Your task to perform on an android device: Empty the shopping cart on bestbuy. Image 0: 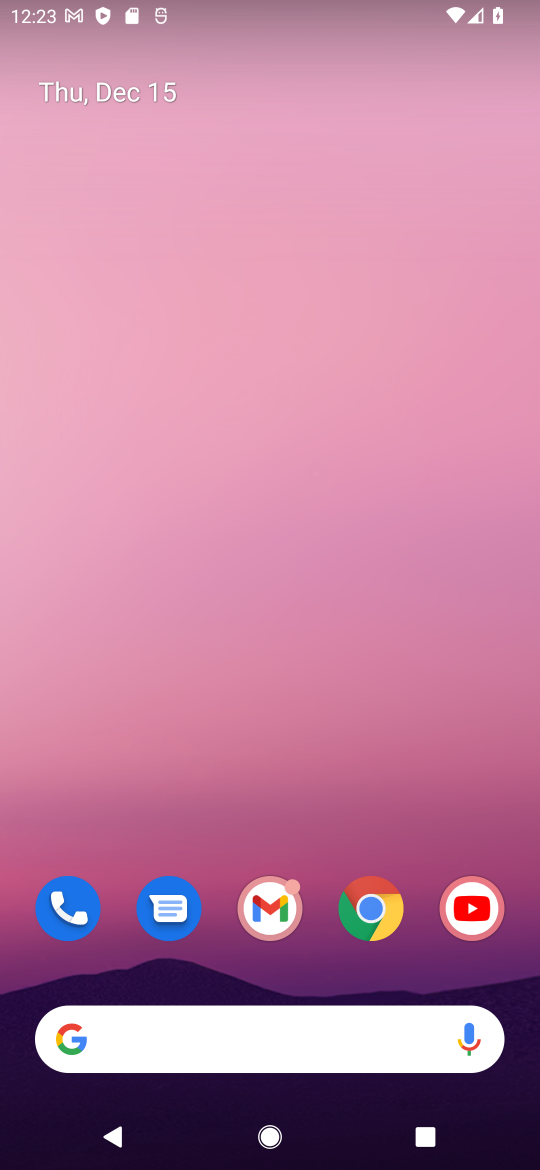
Step 0: click (364, 911)
Your task to perform on an android device: Empty the shopping cart on bestbuy. Image 1: 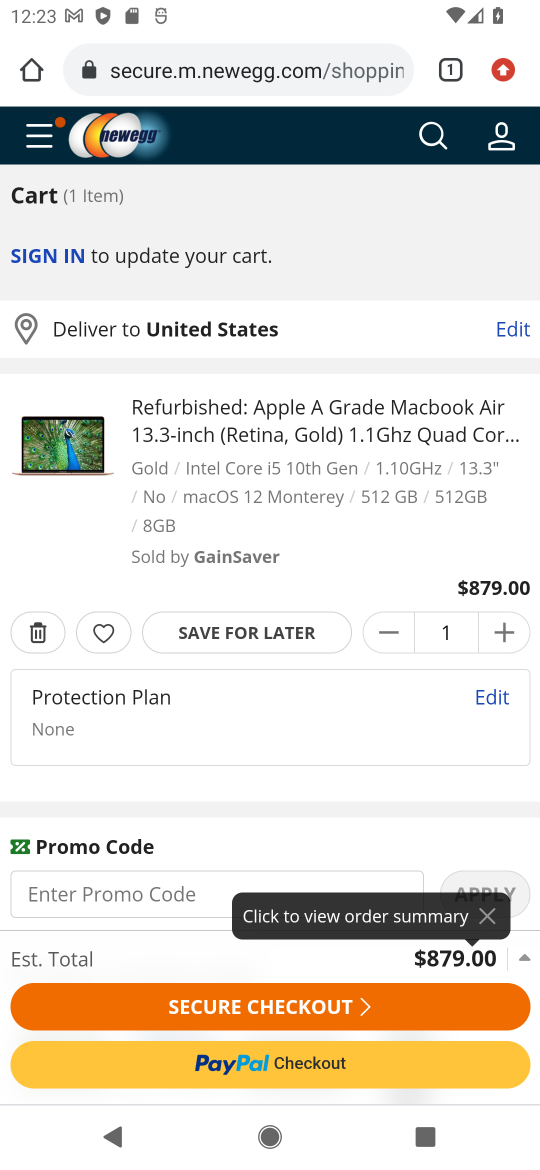
Step 1: click (206, 72)
Your task to perform on an android device: Empty the shopping cart on bestbuy. Image 2: 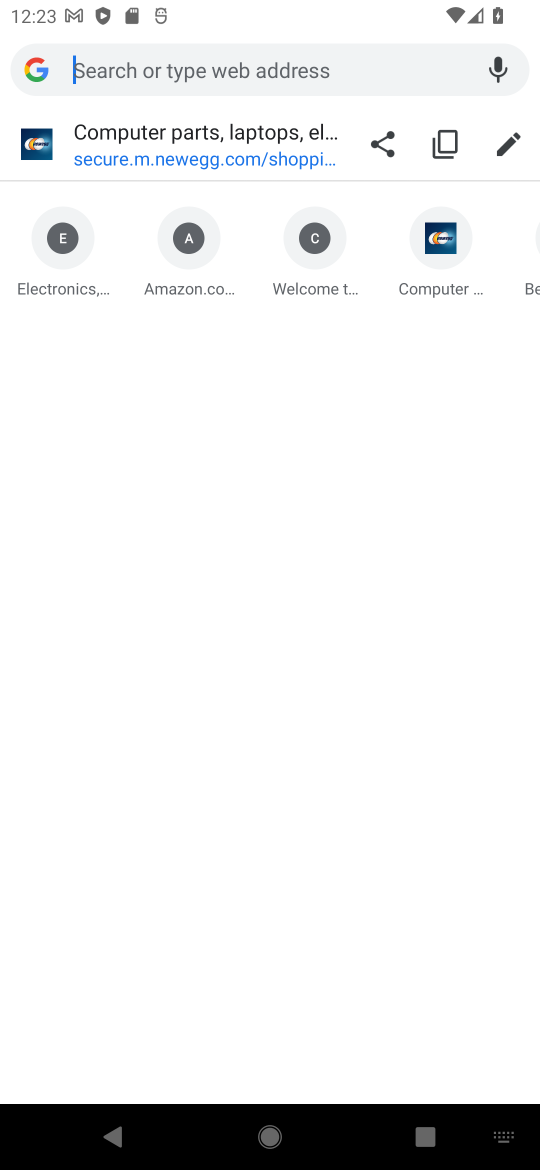
Step 2: type "bestbuy.com"
Your task to perform on an android device: Empty the shopping cart on bestbuy. Image 3: 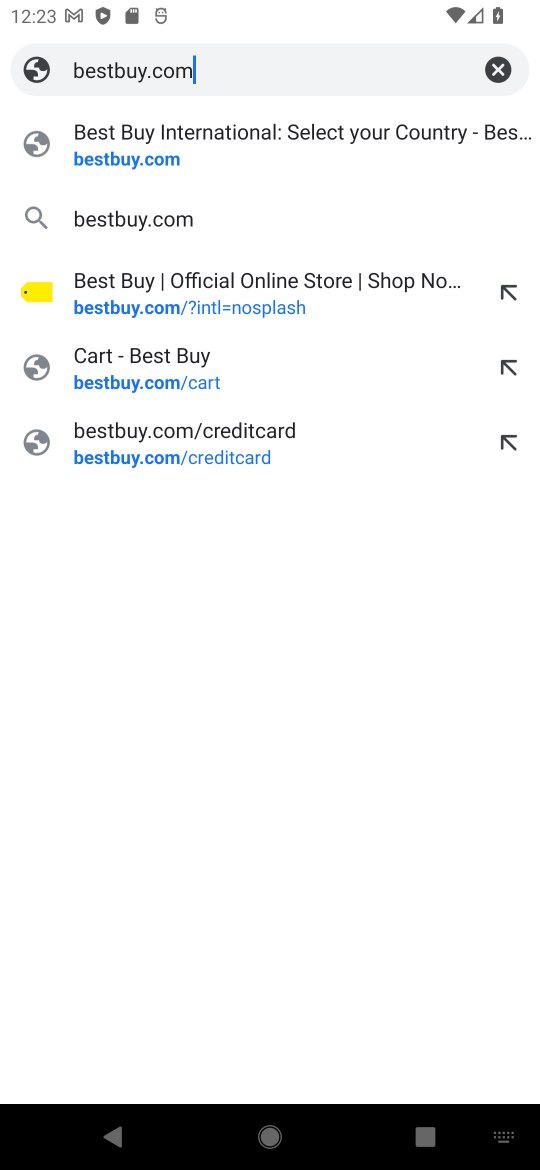
Step 3: click (140, 168)
Your task to perform on an android device: Empty the shopping cart on bestbuy. Image 4: 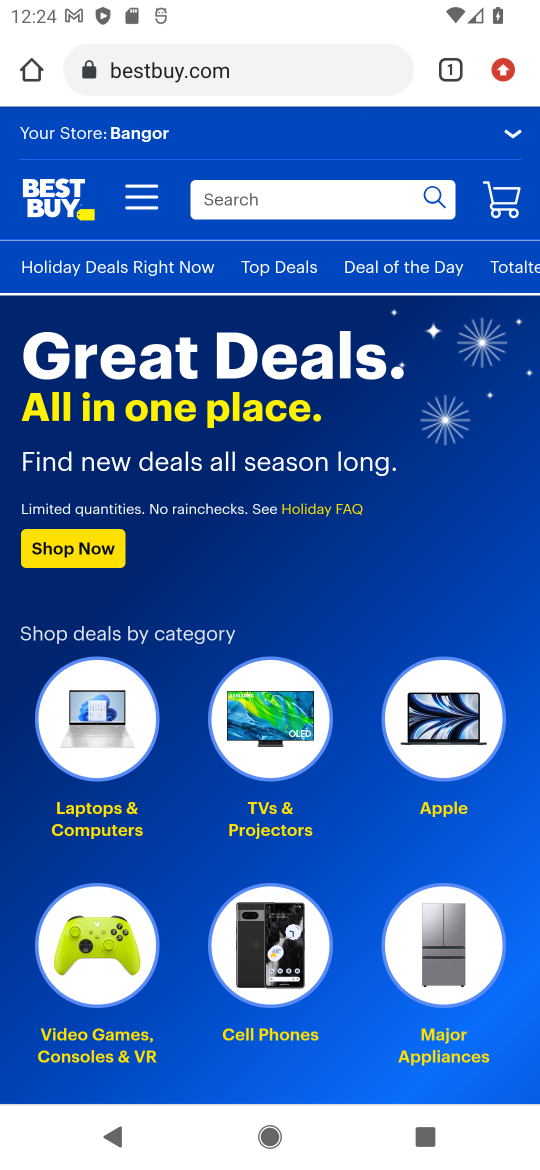
Step 4: click (498, 197)
Your task to perform on an android device: Empty the shopping cart on bestbuy. Image 5: 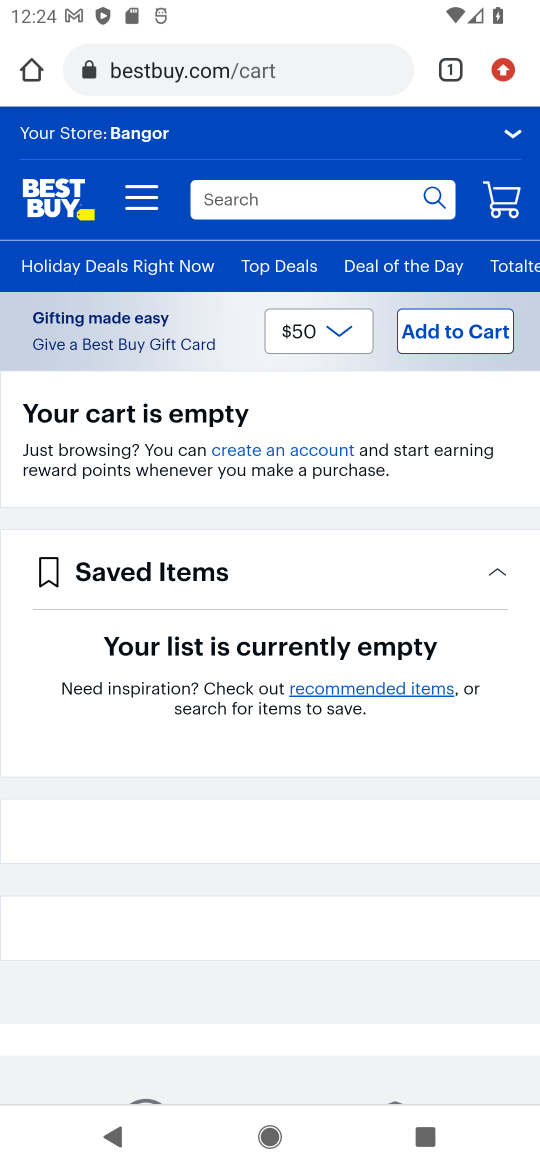
Step 5: task complete